Your task to perform on an android device: clear all cookies in the chrome app Image 0: 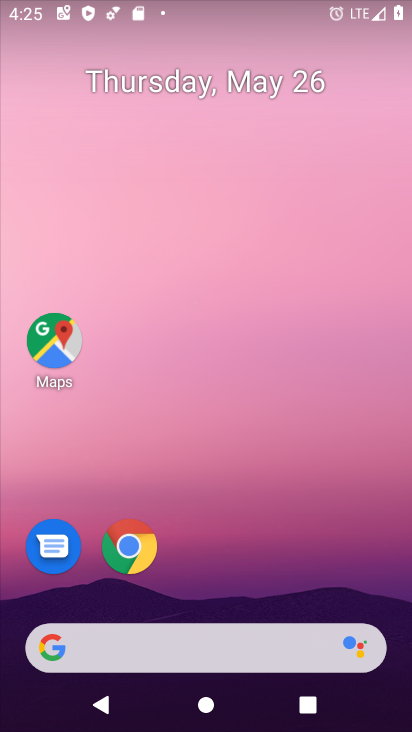
Step 0: click (127, 538)
Your task to perform on an android device: clear all cookies in the chrome app Image 1: 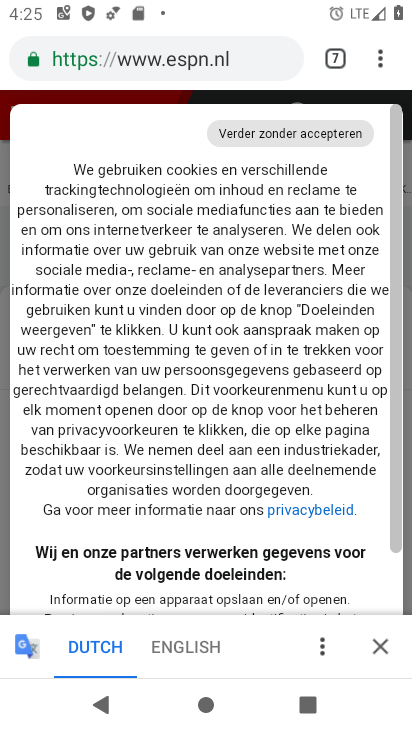
Step 1: drag from (382, 53) to (204, 575)
Your task to perform on an android device: clear all cookies in the chrome app Image 2: 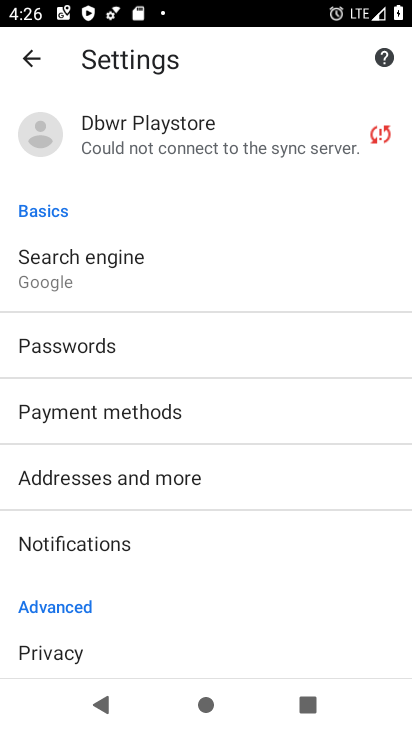
Step 2: drag from (151, 562) to (235, 162)
Your task to perform on an android device: clear all cookies in the chrome app Image 3: 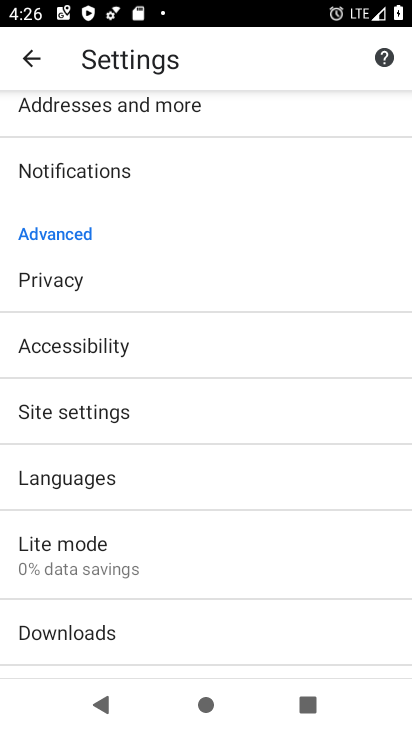
Step 3: click (107, 411)
Your task to perform on an android device: clear all cookies in the chrome app Image 4: 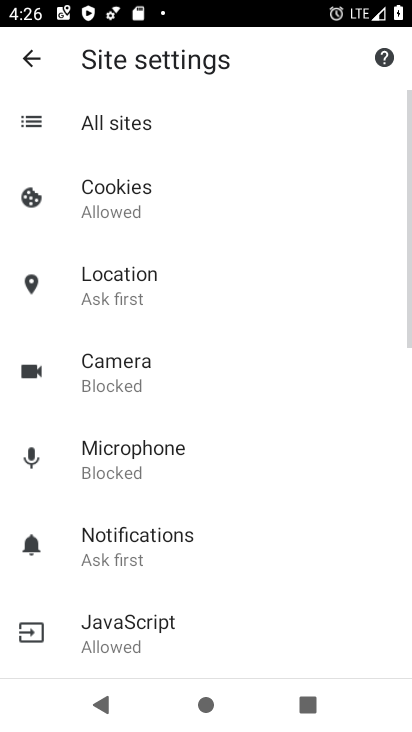
Step 4: click (119, 197)
Your task to perform on an android device: clear all cookies in the chrome app Image 5: 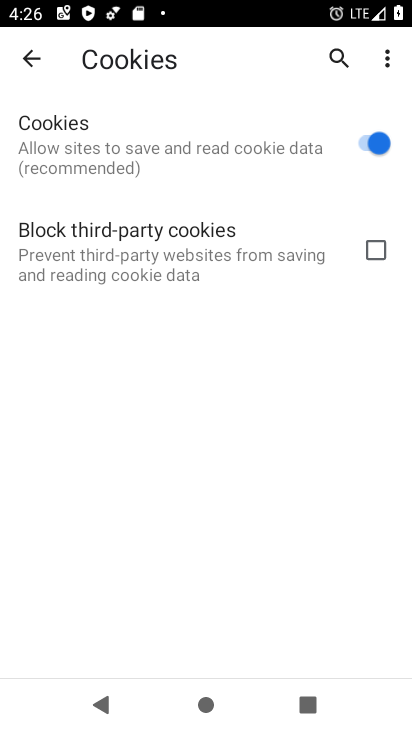
Step 5: click (41, 55)
Your task to perform on an android device: clear all cookies in the chrome app Image 6: 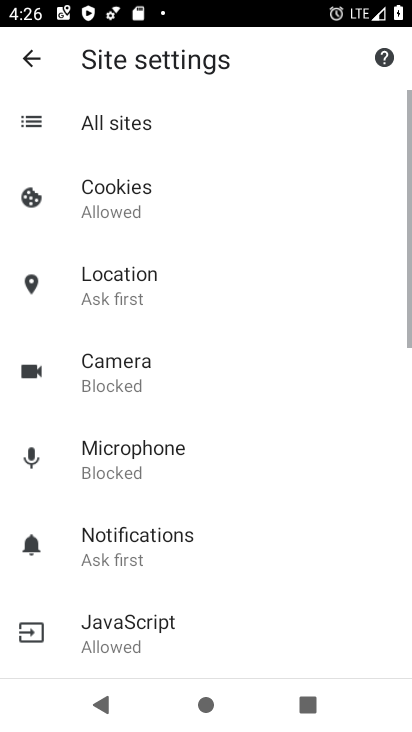
Step 6: click (35, 54)
Your task to perform on an android device: clear all cookies in the chrome app Image 7: 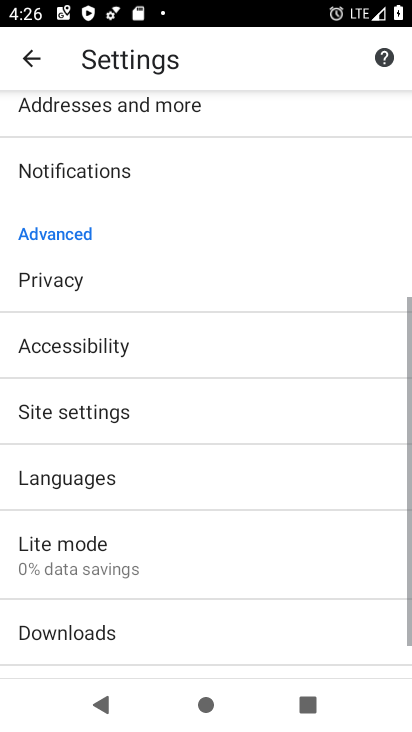
Step 7: click (35, 54)
Your task to perform on an android device: clear all cookies in the chrome app Image 8: 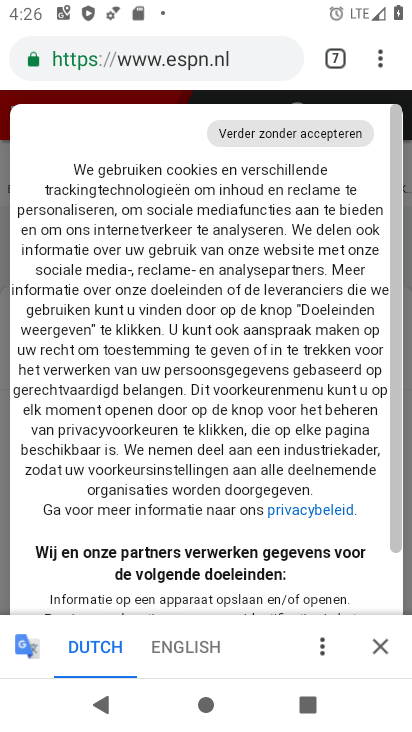
Step 8: drag from (379, 48) to (212, 341)
Your task to perform on an android device: clear all cookies in the chrome app Image 9: 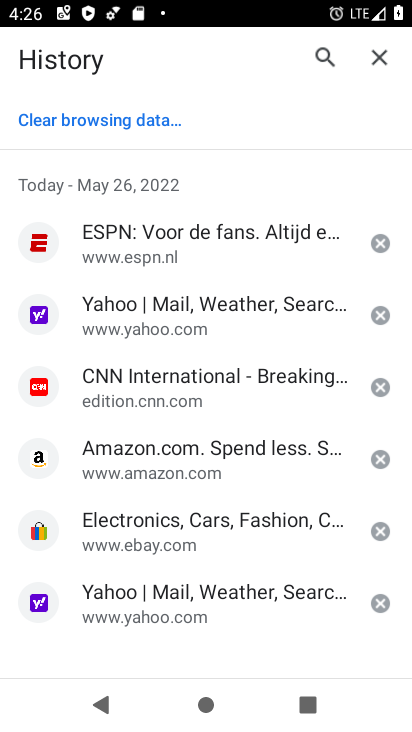
Step 9: click (57, 122)
Your task to perform on an android device: clear all cookies in the chrome app Image 10: 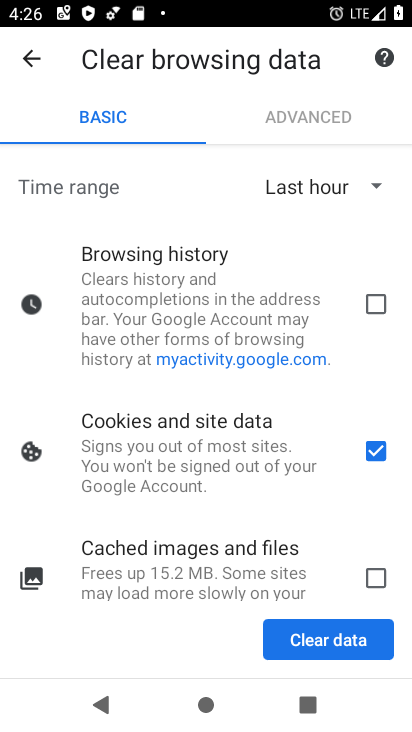
Step 10: click (327, 635)
Your task to perform on an android device: clear all cookies in the chrome app Image 11: 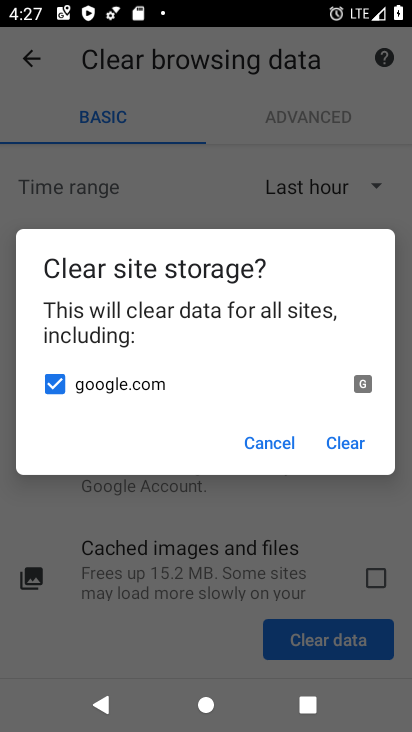
Step 11: click (357, 437)
Your task to perform on an android device: clear all cookies in the chrome app Image 12: 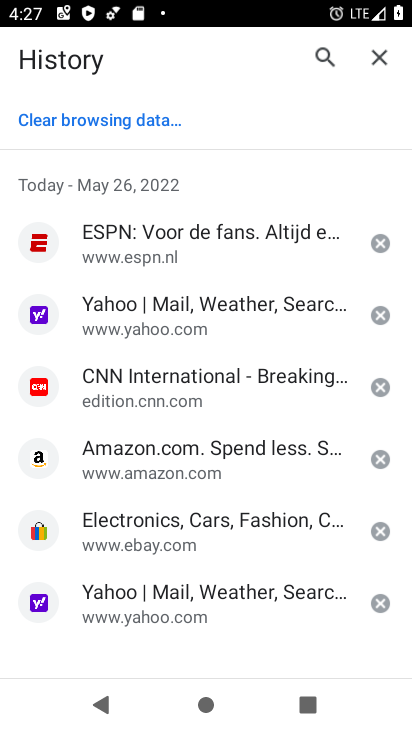
Step 12: click (113, 121)
Your task to perform on an android device: clear all cookies in the chrome app Image 13: 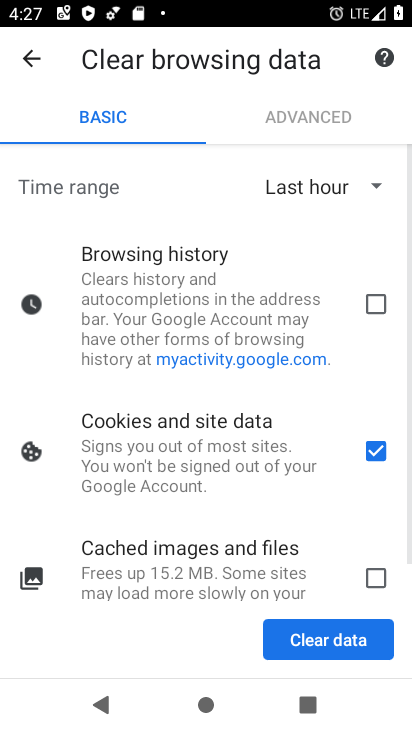
Step 13: click (325, 631)
Your task to perform on an android device: clear all cookies in the chrome app Image 14: 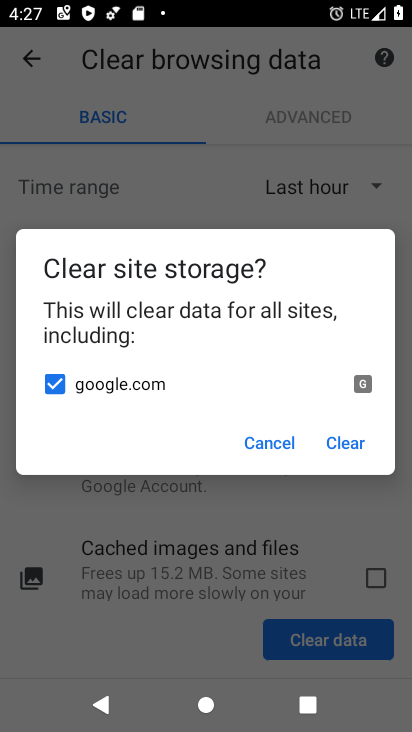
Step 14: click (339, 444)
Your task to perform on an android device: clear all cookies in the chrome app Image 15: 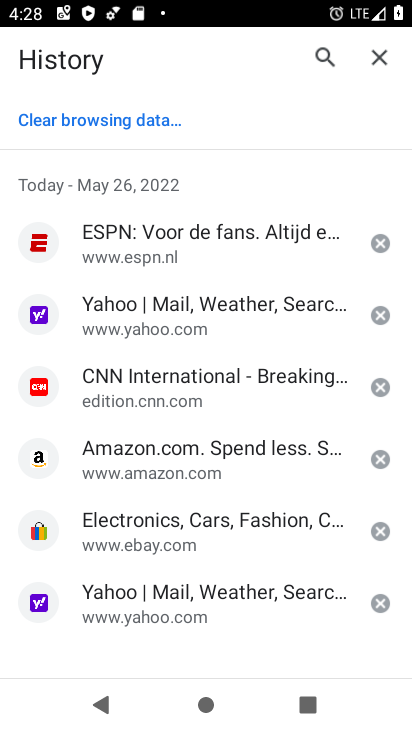
Step 15: task complete